Your task to perform on an android device: Open settings Image 0: 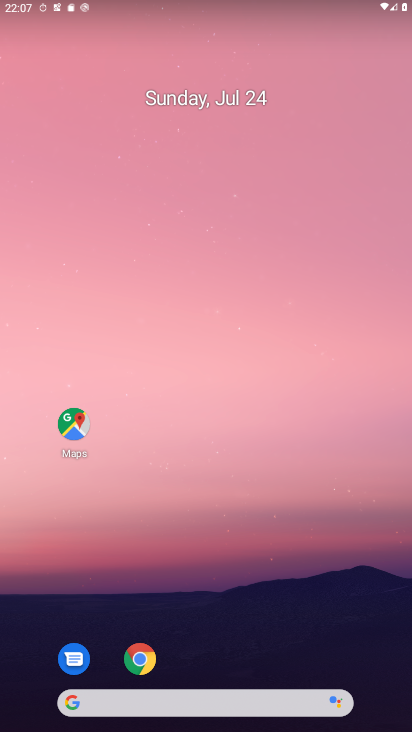
Step 0: drag from (207, 730) to (179, 78)
Your task to perform on an android device: Open settings Image 1: 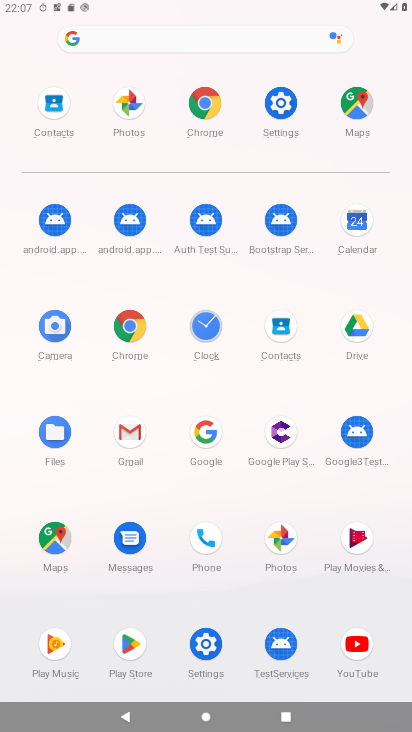
Step 1: click (285, 103)
Your task to perform on an android device: Open settings Image 2: 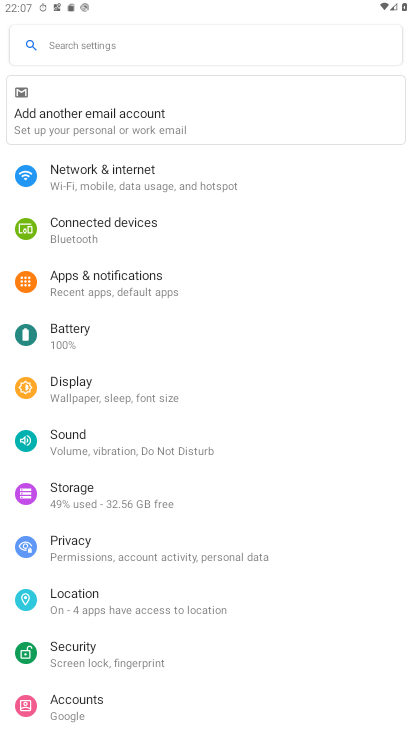
Step 2: task complete